Your task to perform on an android device: Is it going to rain today? Image 0: 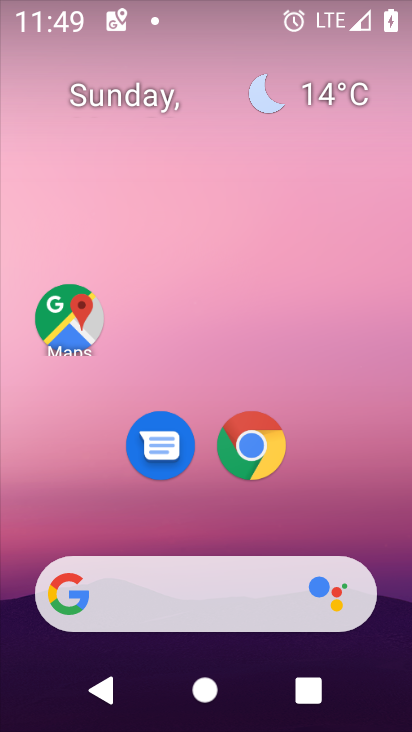
Step 0: drag from (230, 526) to (333, 113)
Your task to perform on an android device: Is it going to rain today? Image 1: 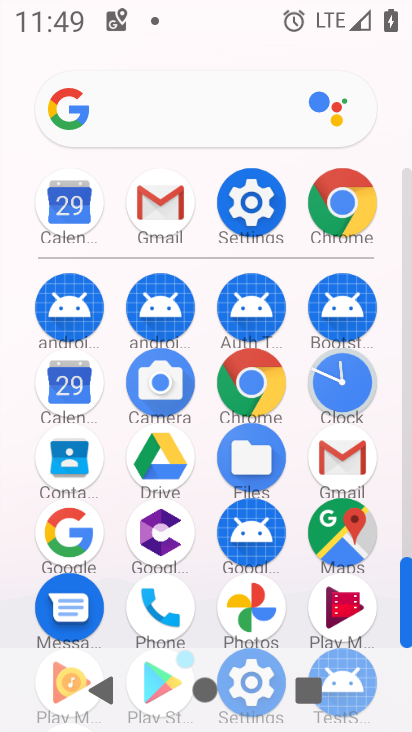
Step 1: click (154, 96)
Your task to perform on an android device: Is it going to rain today? Image 2: 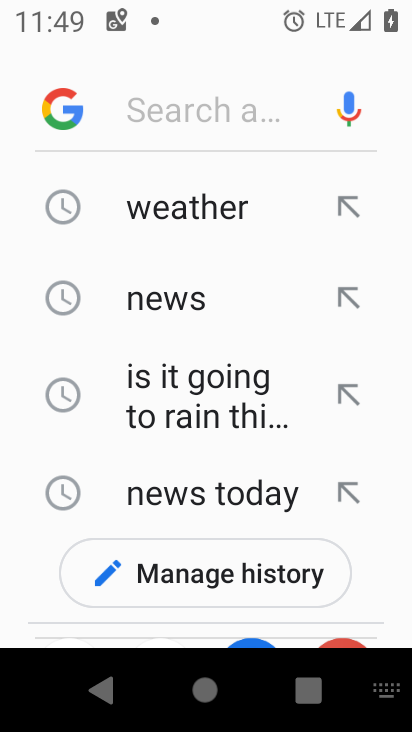
Step 2: type "rain today"
Your task to perform on an android device: Is it going to rain today? Image 3: 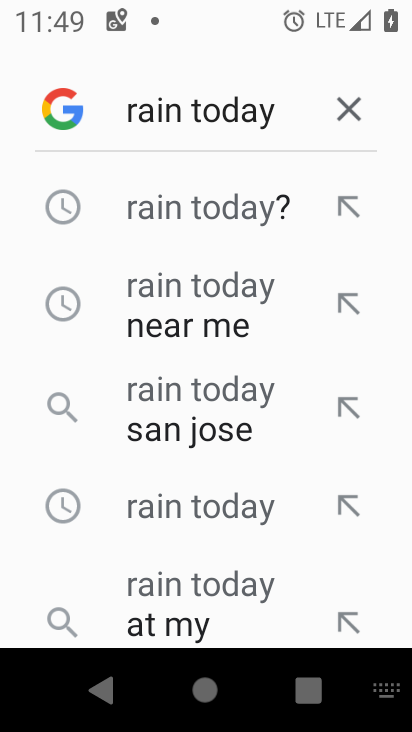
Step 3: click (155, 244)
Your task to perform on an android device: Is it going to rain today? Image 4: 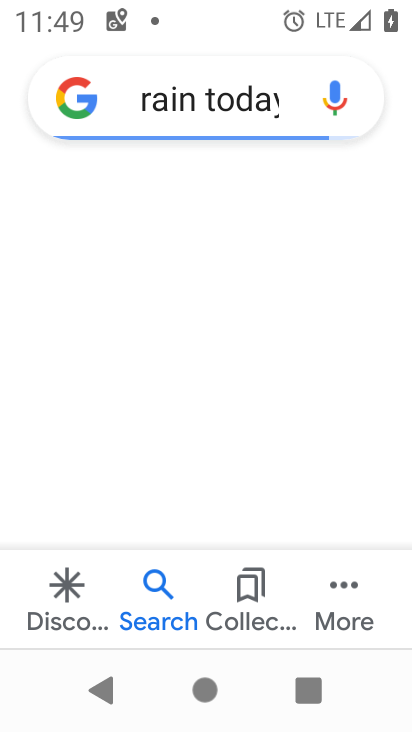
Step 4: task complete